Your task to perform on an android device: Open Youtube and go to "Your channel" Image 0: 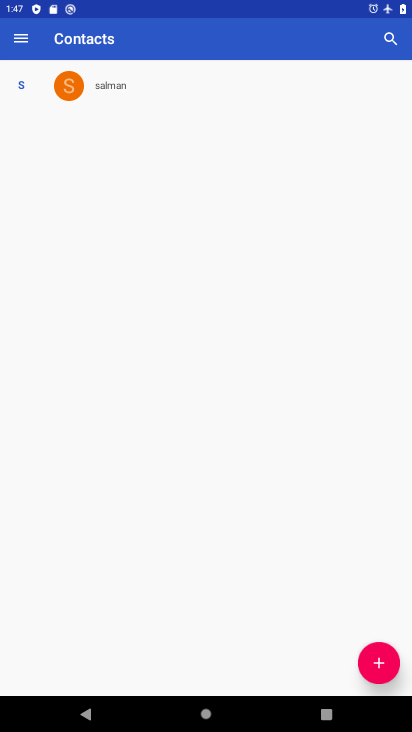
Step 0: press home button
Your task to perform on an android device: Open Youtube and go to "Your channel" Image 1: 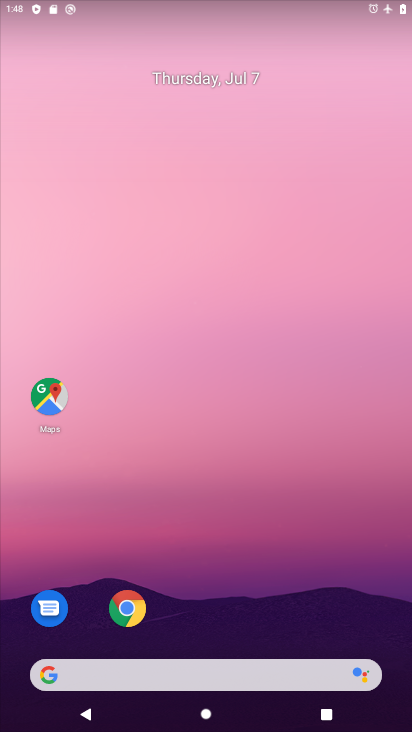
Step 1: drag from (248, 720) to (225, 113)
Your task to perform on an android device: Open Youtube and go to "Your channel" Image 2: 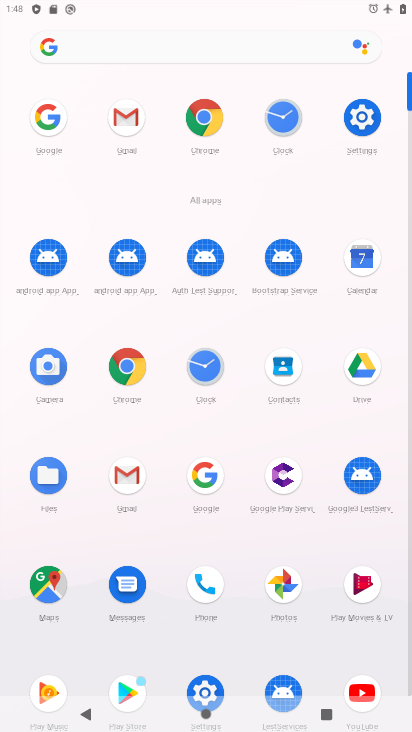
Step 2: click (360, 687)
Your task to perform on an android device: Open Youtube and go to "Your channel" Image 3: 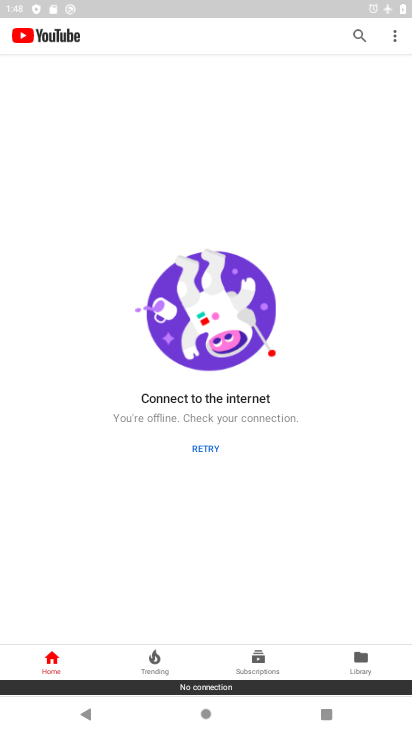
Step 3: click (360, 658)
Your task to perform on an android device: Open Youtube and go to "Your channel" Image 4: 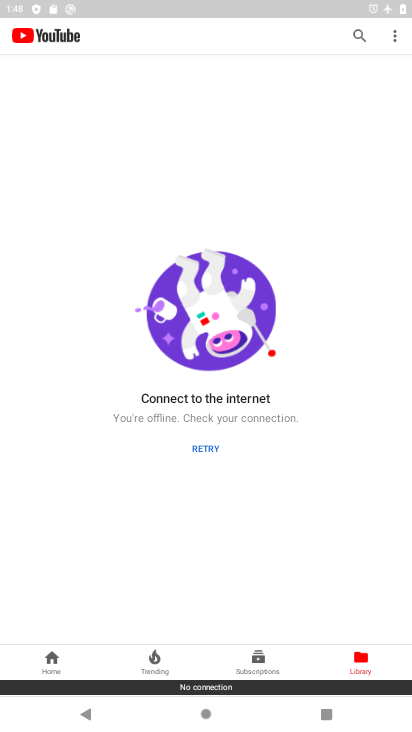
Step 4: task complete